Your task to perform on an android device: Open Google Chrome and open the bookmarks view Image 0: 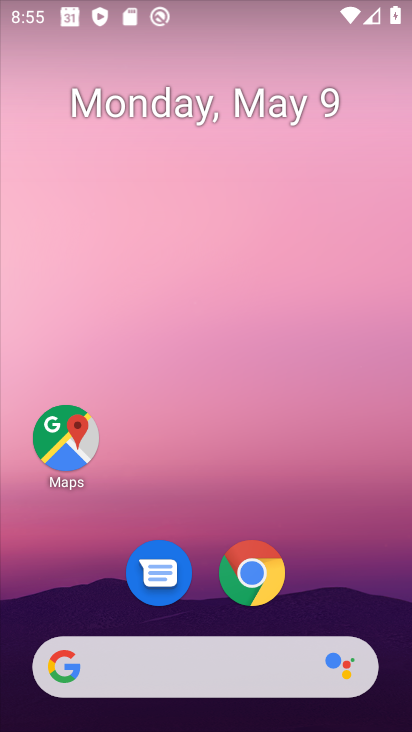
Step 0: click (269, 574)
Your task to perform on an android device: Open Google Chrome and open the bookmarks view Image 1: 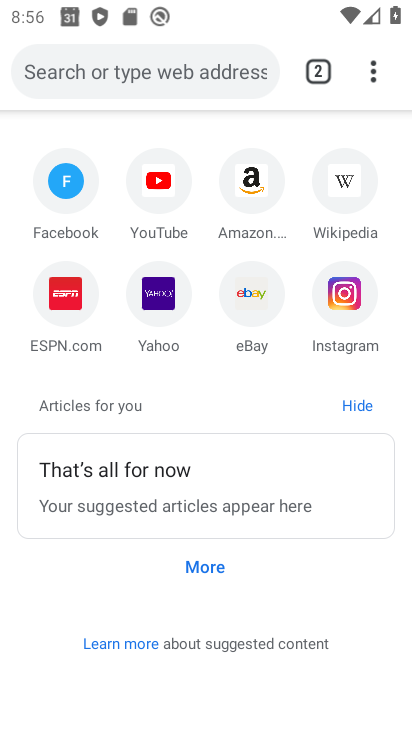
Step 1: click (376, 82)
Your task to perform on an android device: Open Google Chrome and open the bookmarks view Image 2: 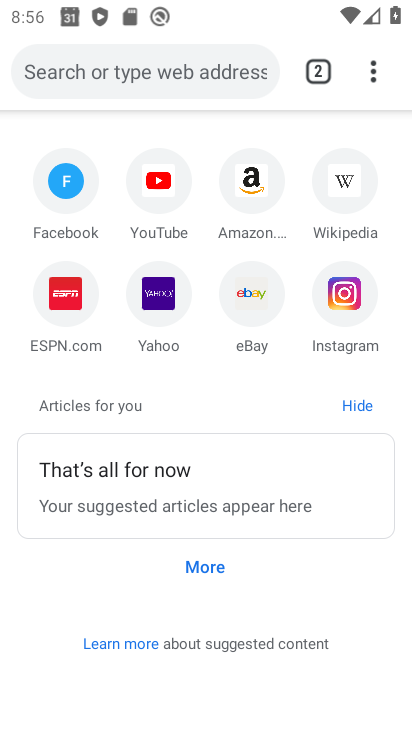
Step 2: click (376, 82)
Your task to perform on an android device: Open Google Chrome and open the bookmarks view Image 3: 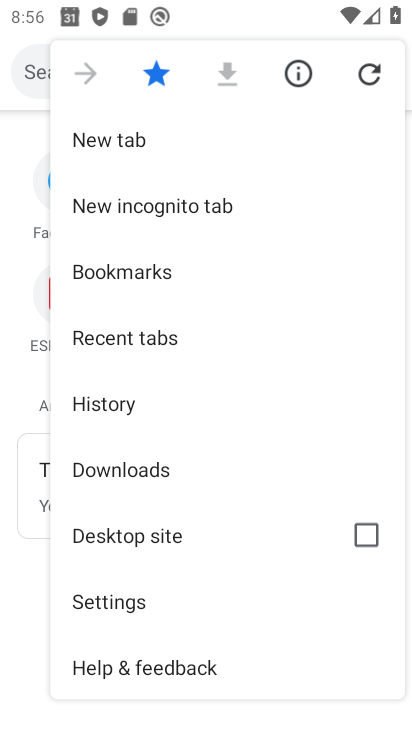
Step 3: click (156, 276)
Your task to perform on an android device: Open Google Chrome and open the bookmarks view Image 4: 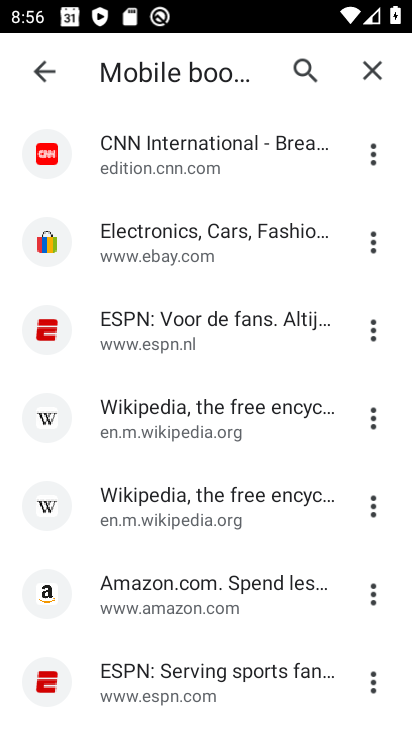
Step 4: task complete